Your task to perform on an android device: turn off location history Image 0: 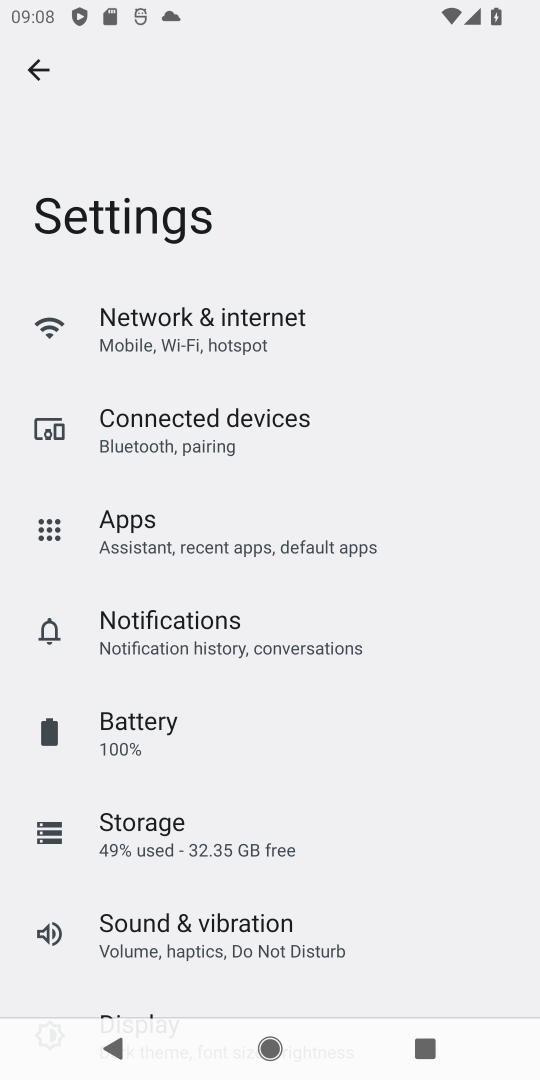
Step 0: drag from (224, 879) to (290, 414)
Your task to perform on an android device: turn off location history Image 1: 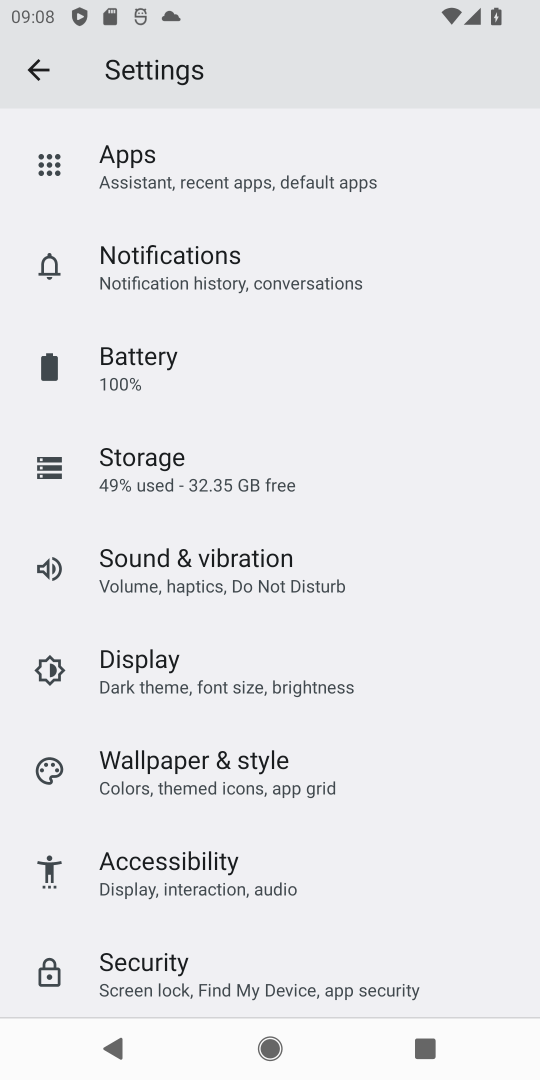
Step 1: drag from (190, 707) to (190, 455)
Your task to perform on an android device: turn off location history Image 2: 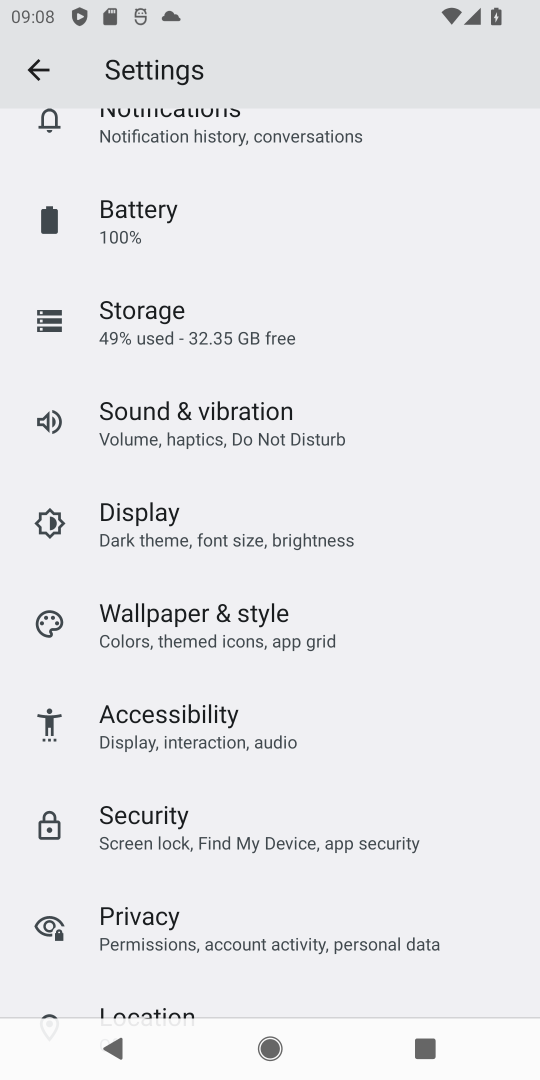
Step 2: drag from (135, 964) to (180, 383)
Your task to perform on an android device: turn off location history Image 3: 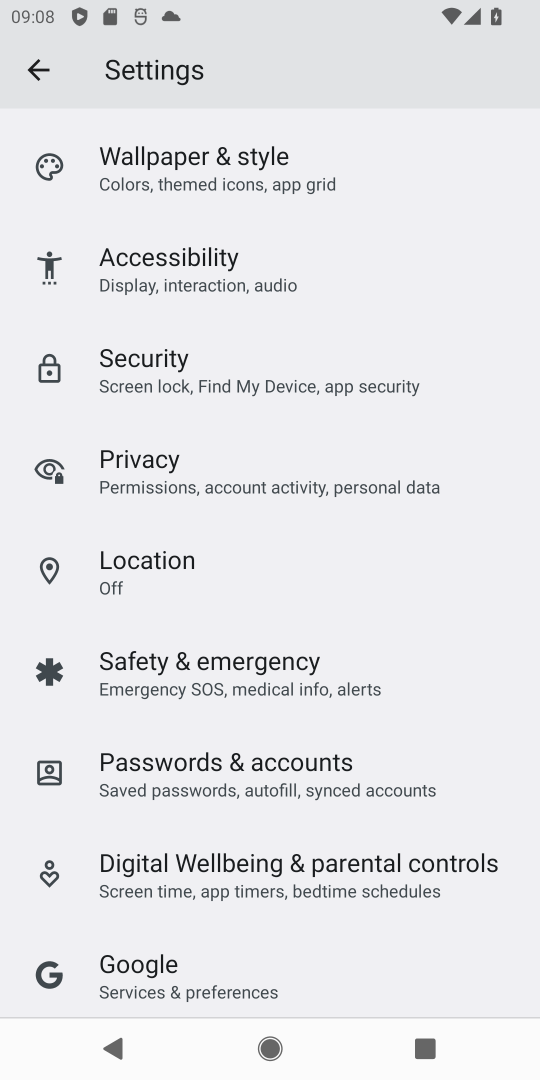
Step 3: click (130, 553)
Your task to perform on an android device: turn off location history Image 4: 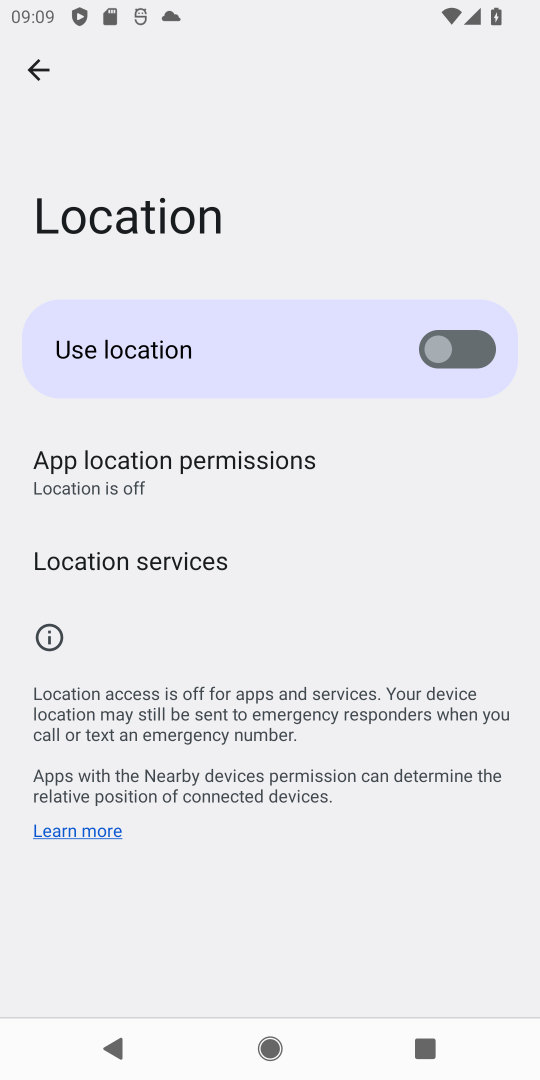
Step 4: task complete